Your task to perform on an android device: open the mobile data screen to see how much data has been used Image 0: 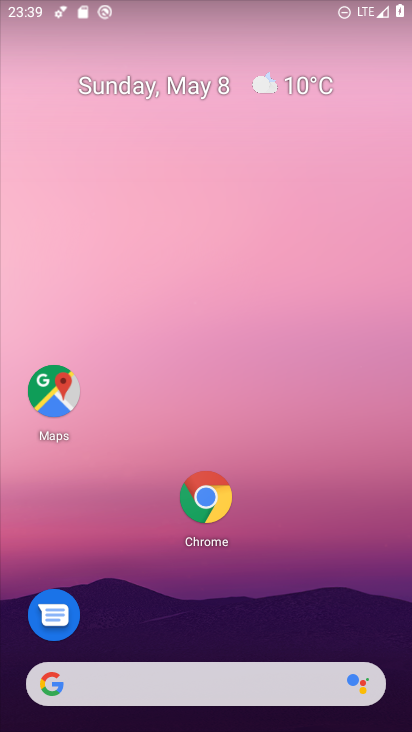
Step 0: drag from (318, 537) to (385, 55)
Your task to perform on an android device: open the mobile data screen to see how much data has been used Image 1: 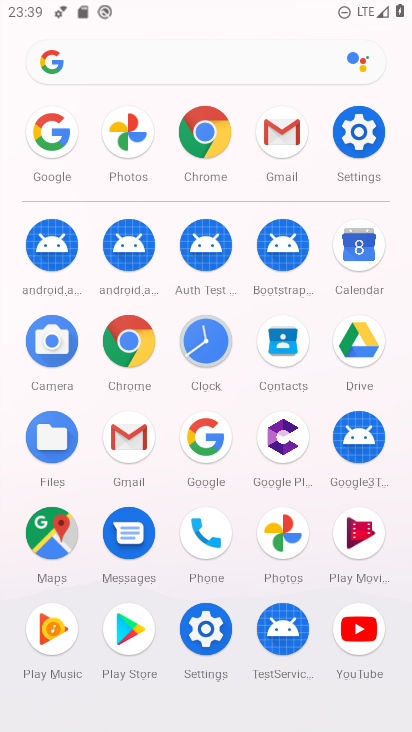
Step 1: click (350, 130)
Your task to perform on an android device: open the mobile data screen to see how much data has been used Image 2: 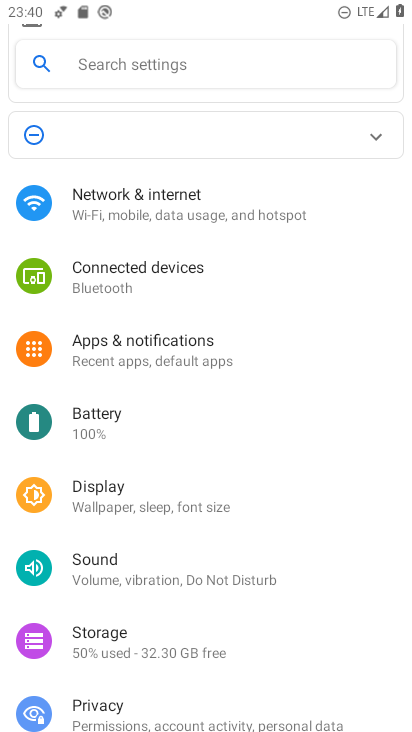
Step 2: click (129, 212)
Your task to perform on an android device: open the mobile data screen to see how much data has been used Image 3: 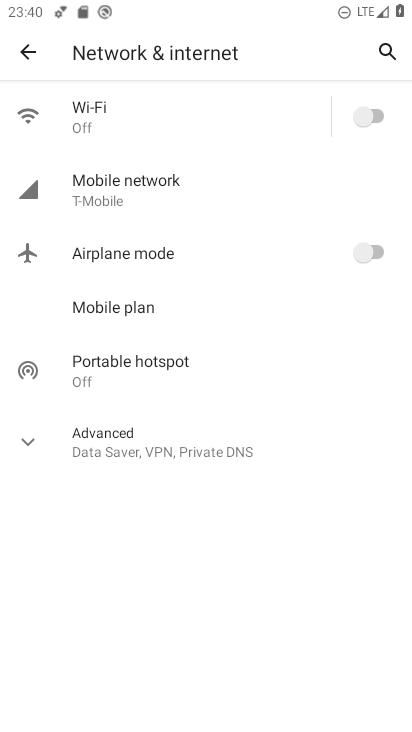
Step 3: click (158, 185)
Your task to perform on an android device: open the mobile data screen to see how much data has been used Image 4: 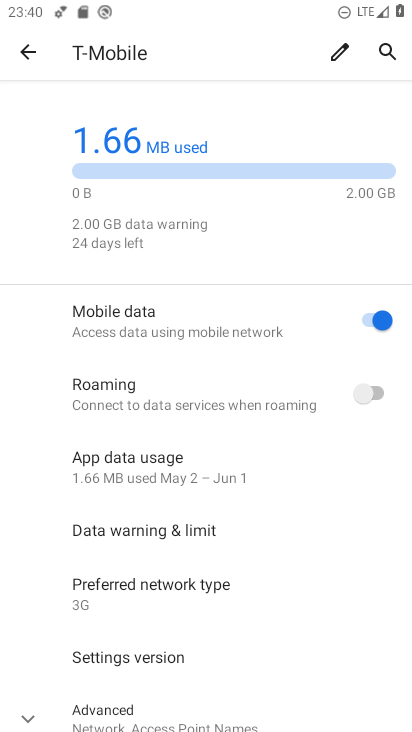
Step 4: task complete